Your task to perform on an android device: turn off notifications in google photos Image 0: 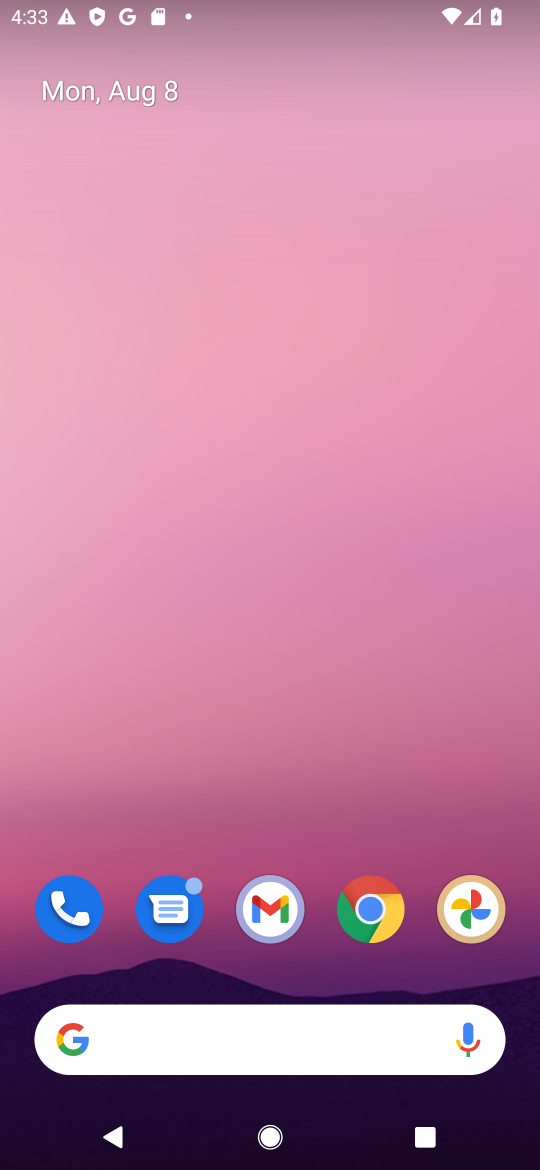
Step 0: click (474, 889)
Your task to perform on an android device: turn off notifications in google photos Image 1: 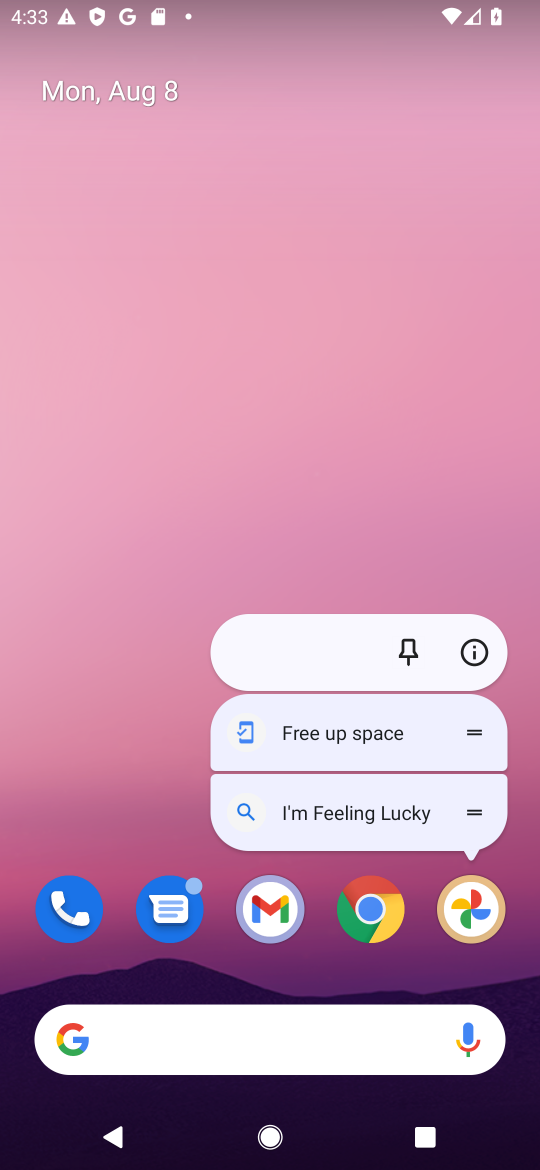
Step 1: click (474, 888)
Your task to perform on an android device: turn off notifications in google photos Image 2: 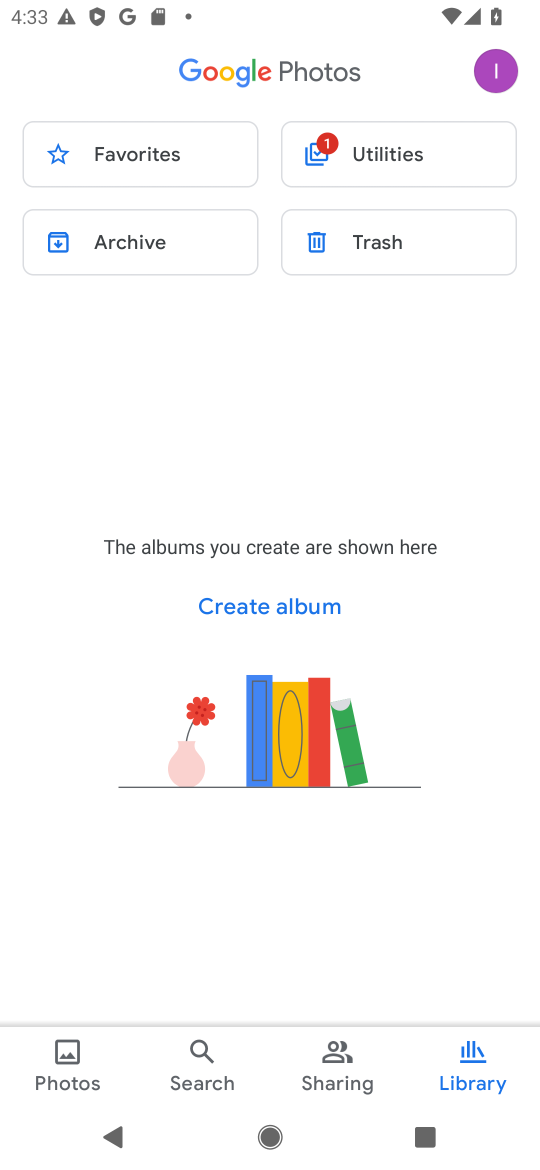
Step 2: click (506, 74)
Your task to perform on an android device: turn off notifications in google photos Image 3: 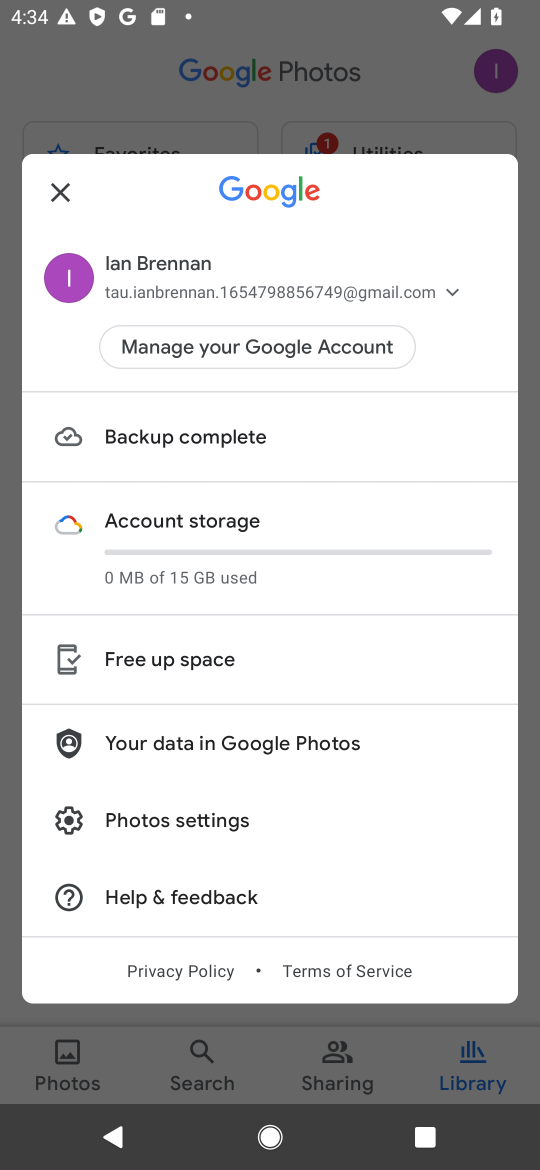
Step 3: click (195, 824)
Your task to perform on an android device: turn off notifications in google photos Image 4: 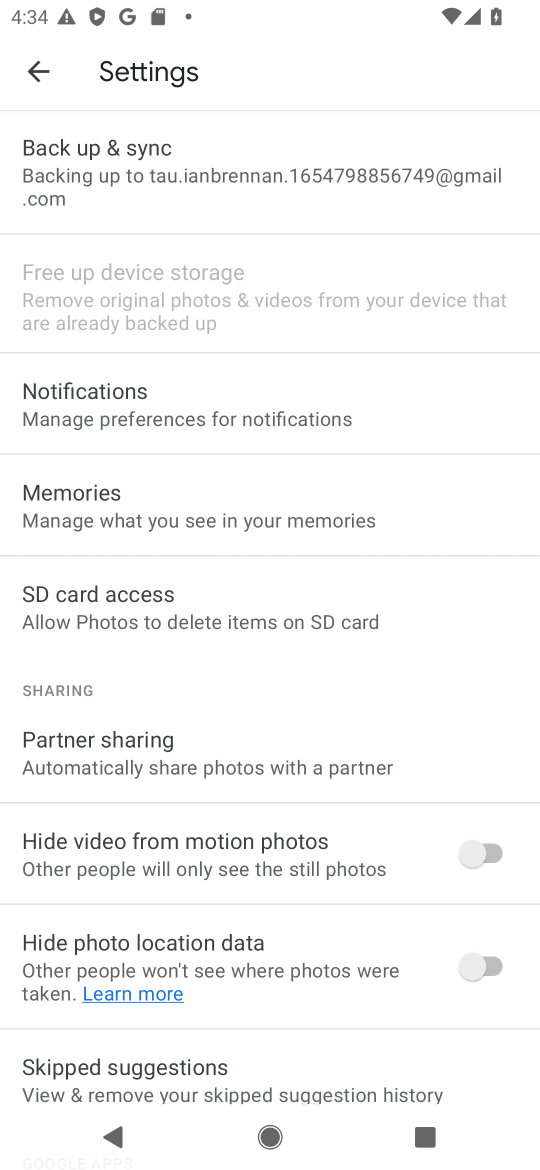
Step 4: click (239, 405)
Your task to perform on an android device: turn off notifications in google photos Image 5: 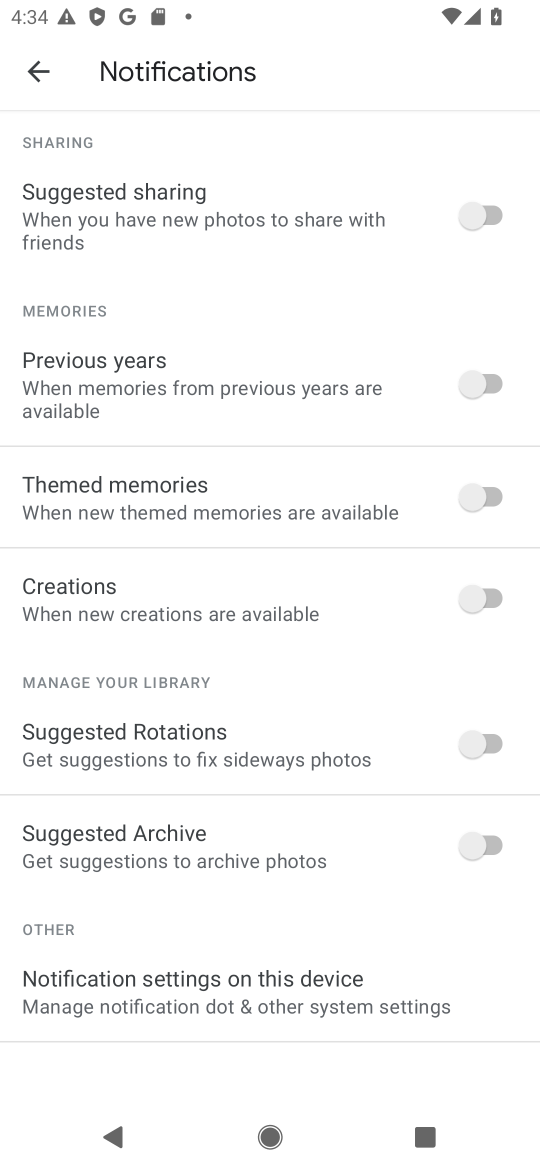
Step 5: click (183, 989)
Your task to perform on an android device: turn off notifications in google photos Image 6: 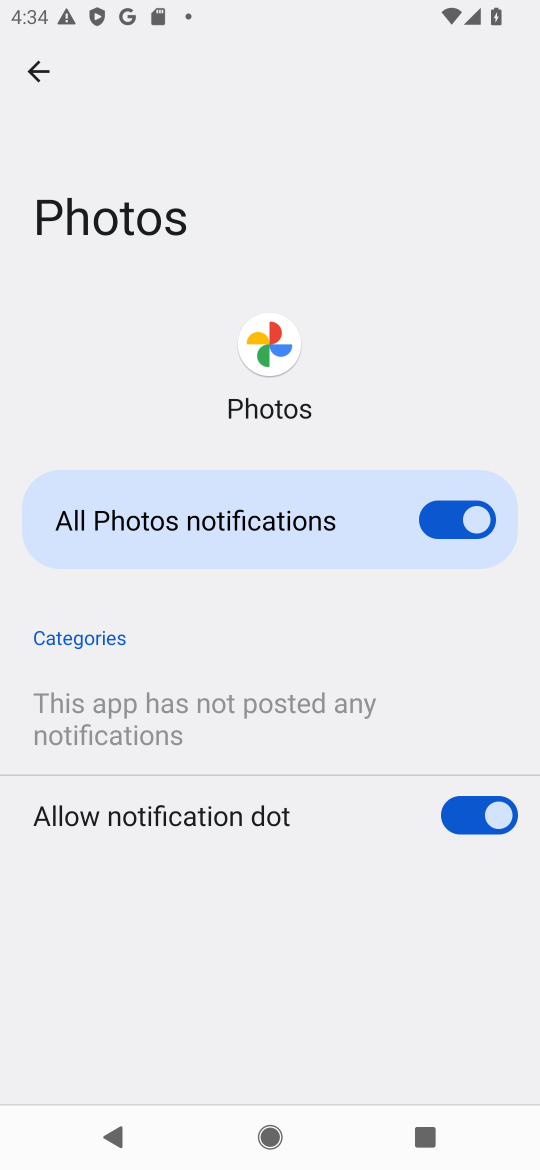
Step 6: click (447, 530)
Your task to perform on an android device: turn off notifications in google photos Image 7: 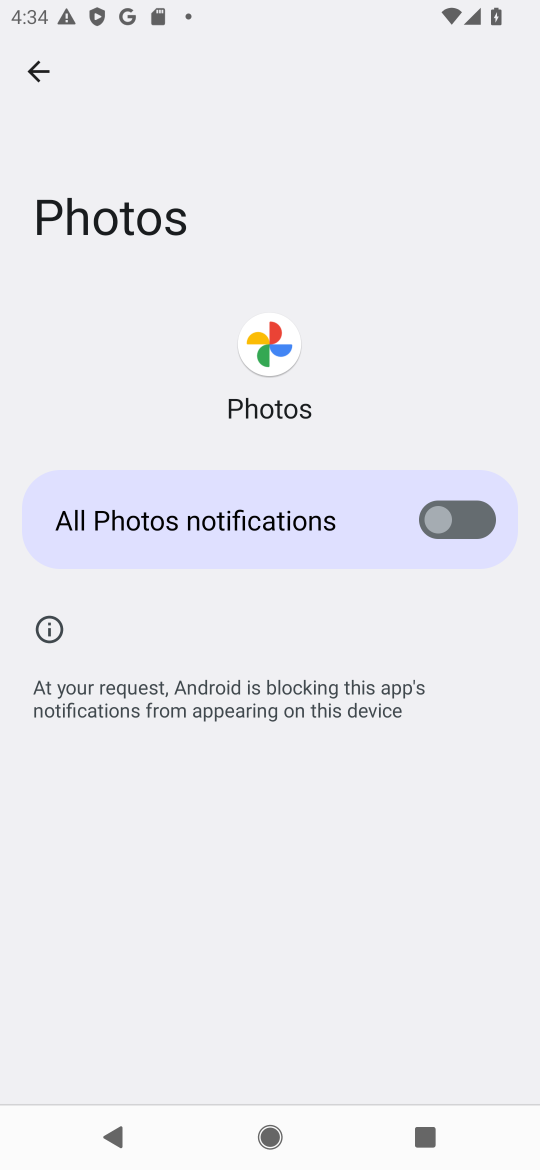
Step 7: task complete